Your task to perform on an android device: What's the weather going to be tomorrow? Image 0: 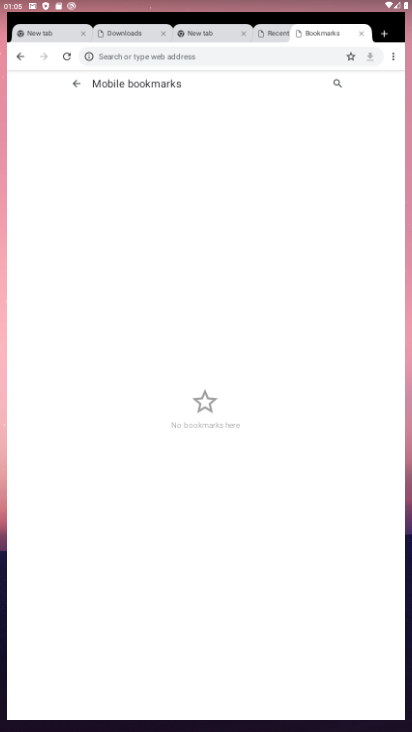
Step 0: press home button
Your task to perform on an android device: What's the weather going to be tomorrow? Image 1: 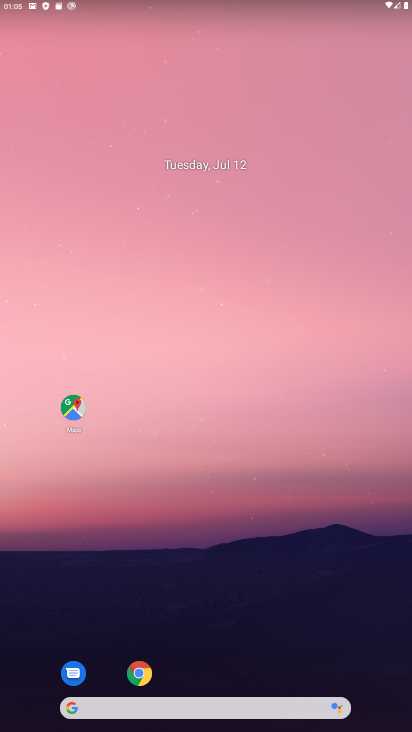
Step 1: click (217, 709)
Your task to perform on an android device: What's the weather going to be tomorrow? Image 2: 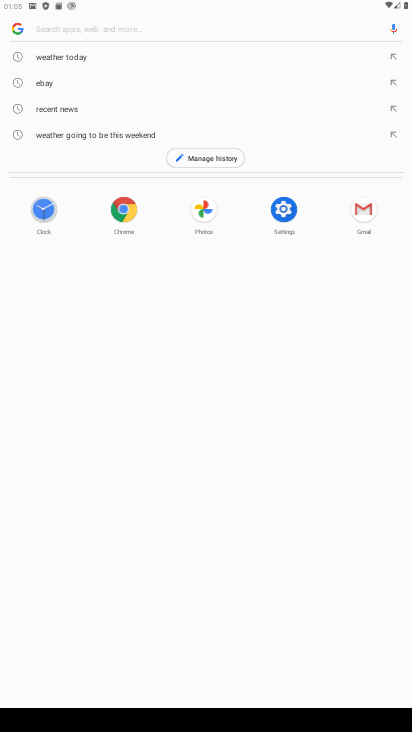
Step 2: type "What's the weather going to be tomorrow?"
Your task to perform on an android device: What's the weather going to be tomorrow? Image 3: 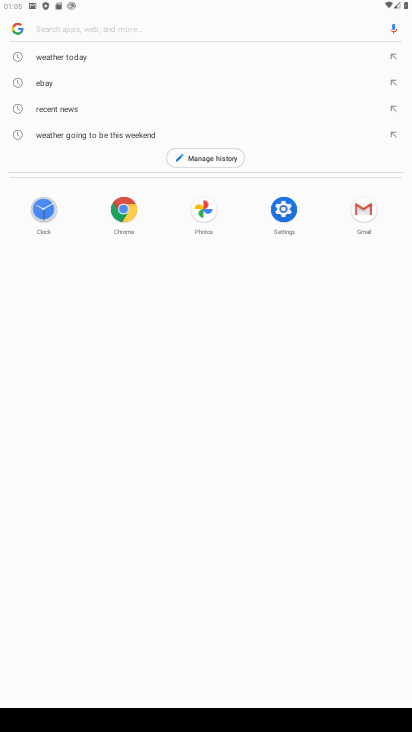
Step 3: click (93, 22)
Your task to perform on an android device: What's the weather going to be tomorrow? Image 4: 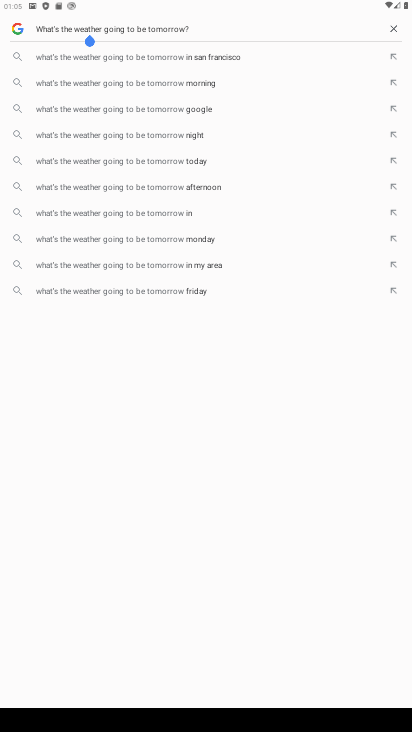
Step 4: press enter
Your task to perform on an android device: What's the weather going to be tomorrow? Image 5: 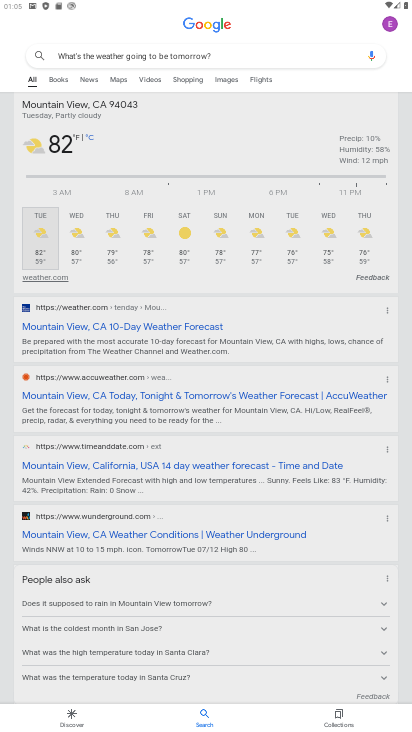
Step 5: task complete